Your task to perform on an android device: Open the phone app and click the voicemail tab. Image 0: 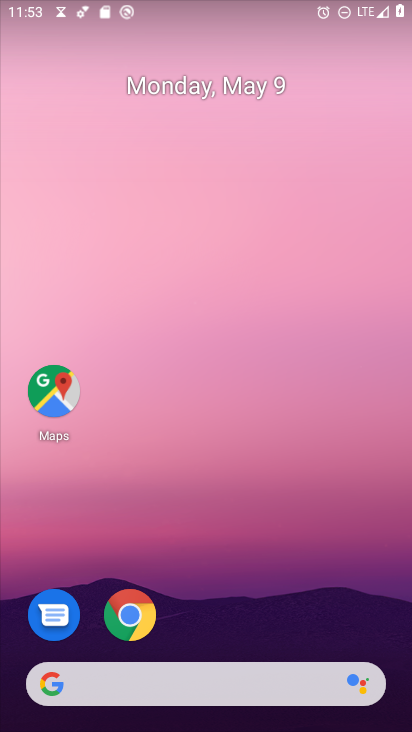
Step 0: drag from (221, 730) to (197, 103)
Your task to perform on an android device: Open the phone app and click the voicemail tab. Image 1: 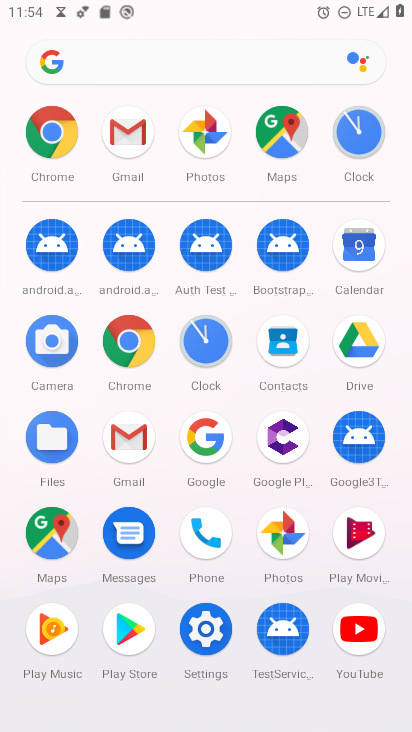
Step 1: click (201, 525)
Your task to perform on an android device: Open the phone app and click the voicemail tab. Image 2: 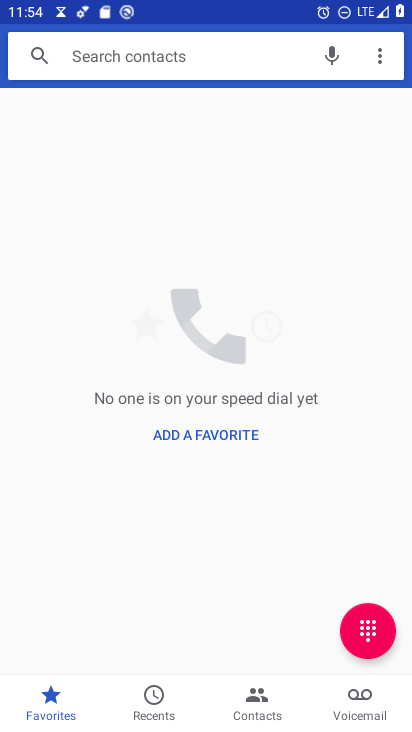
Step 2: click (353, 695)
Your task to perform on an android device: Open the phone app and click the voicemail tab. Image 3: 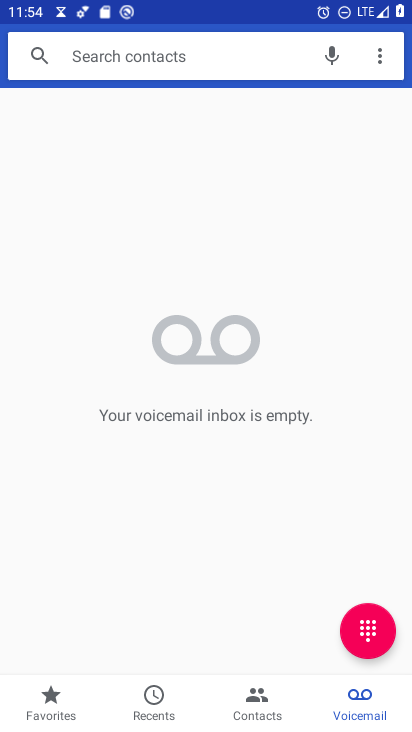
Step 3: task complete